Your task to perform on an android device: Search for 3d printer on AliExpress Image 0: 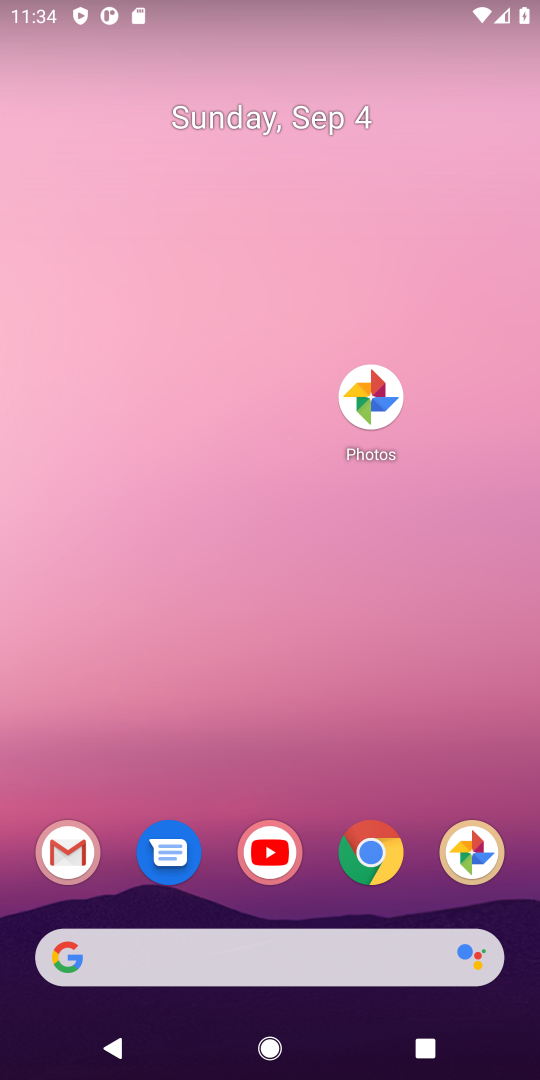
Step 0: drag from (288, 389) to (121, 0)
Your task to perform on an android device: Search for 3d printer on AliExpress Image 1: 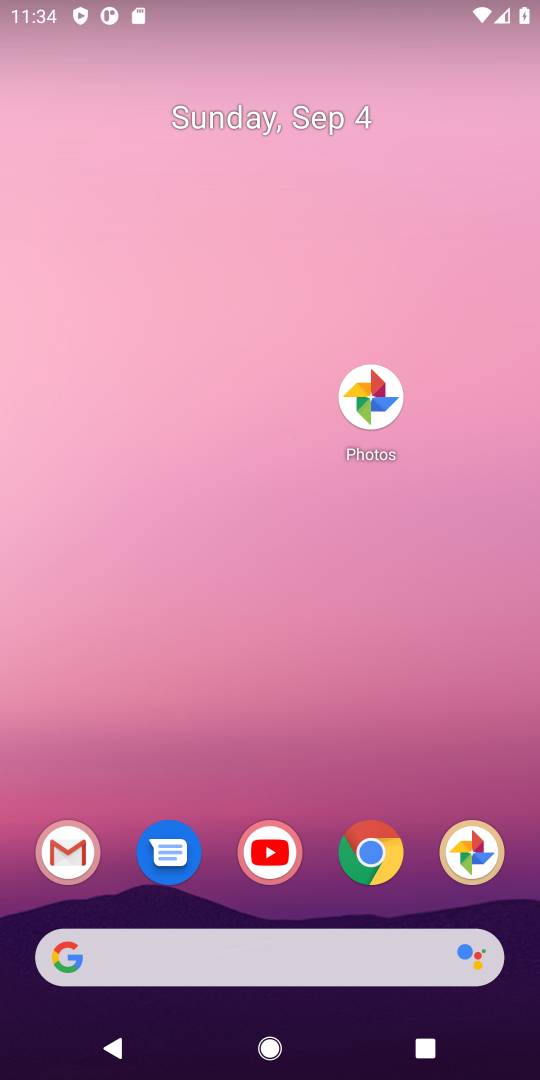
Step 1: drag from (425, 895) to (86, 6)
Your task to perform on an android device: Search for 3d printer on AliExpress Image 2: 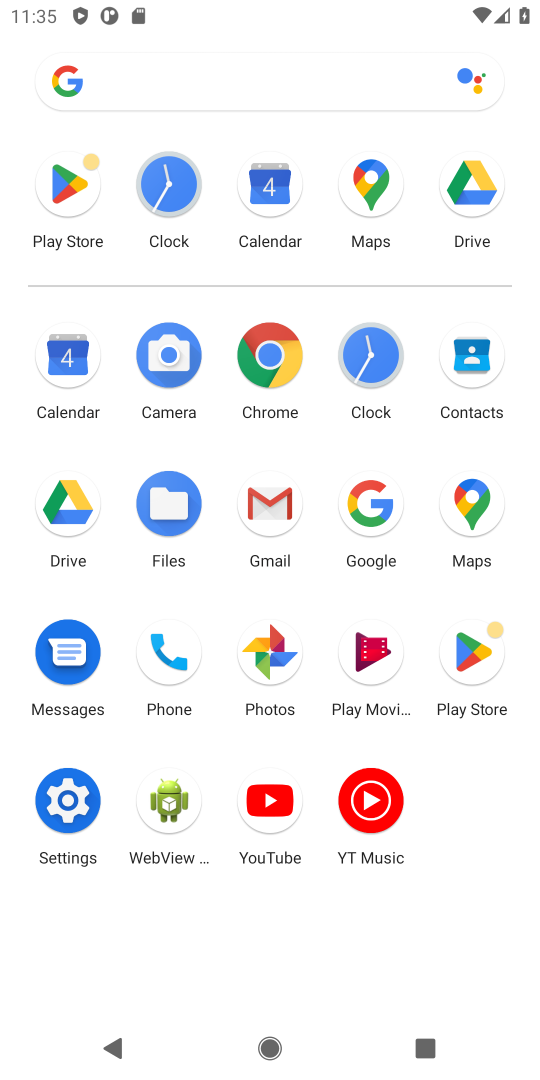
Step 2: click (381, 500)
Your task to perform on an android device: Search for 3d printer on AliExpress Image 3: 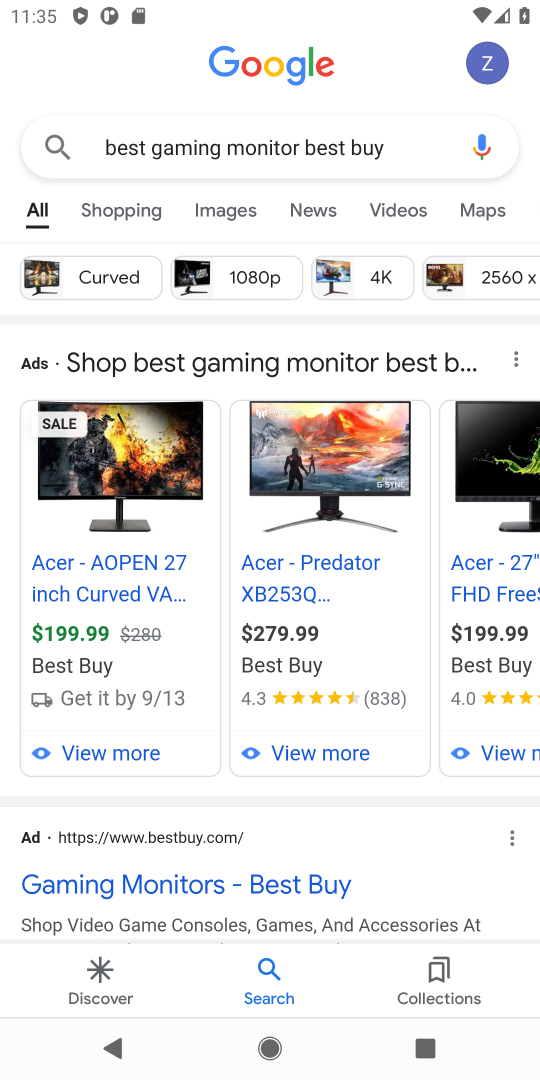
Step 3: press back button
Your task to perform on an android device: Search for 3d printer on AliExpress Image 4: 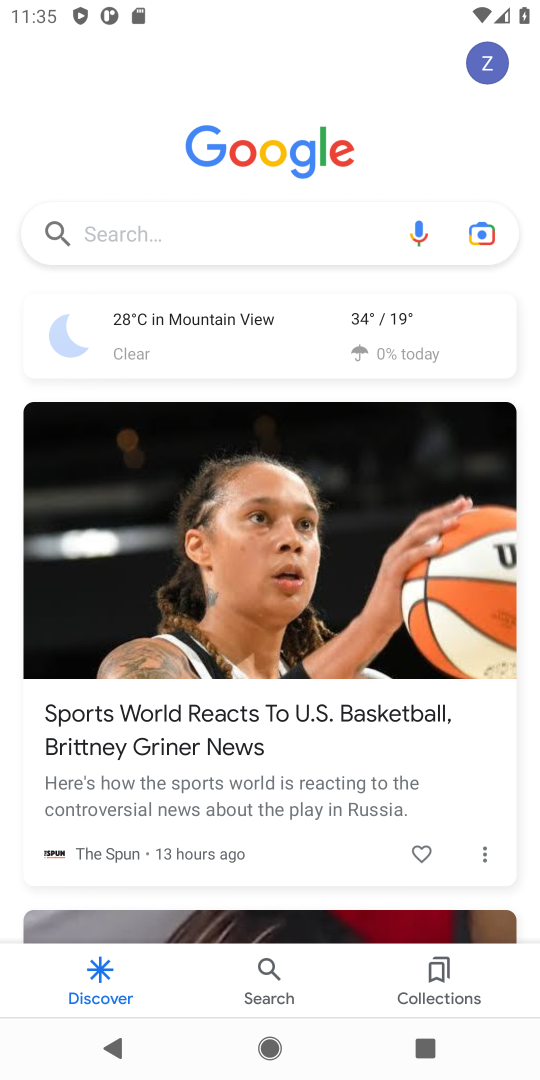
Step 4: click (151, 228)
Your task to perform on an android device: Search for 3d printer on AliExpress Image 5: 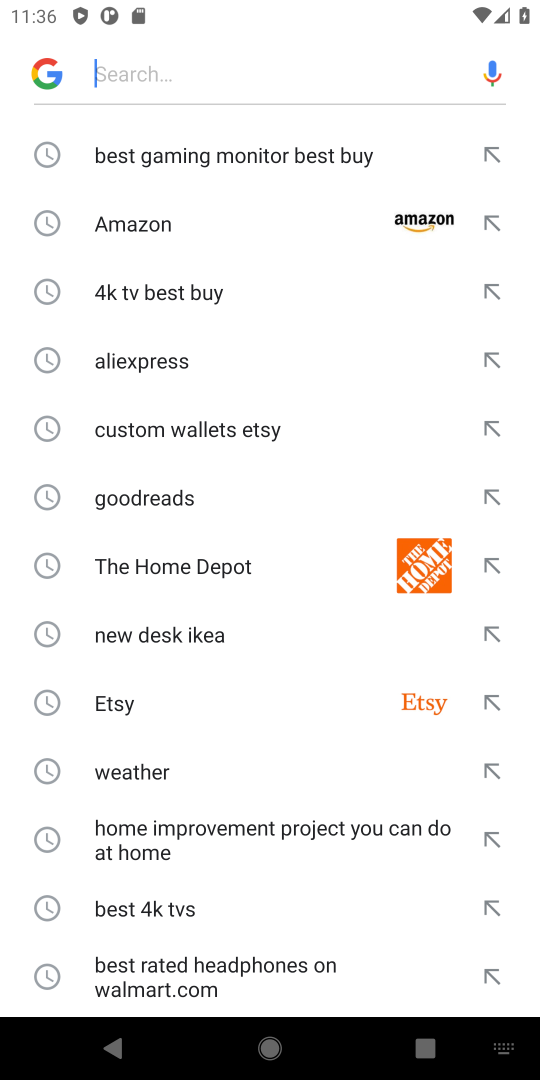
Step 5: click (178, 361)
Your task to perform on an android device: Search for 3d printer on AliExpress Image 6: 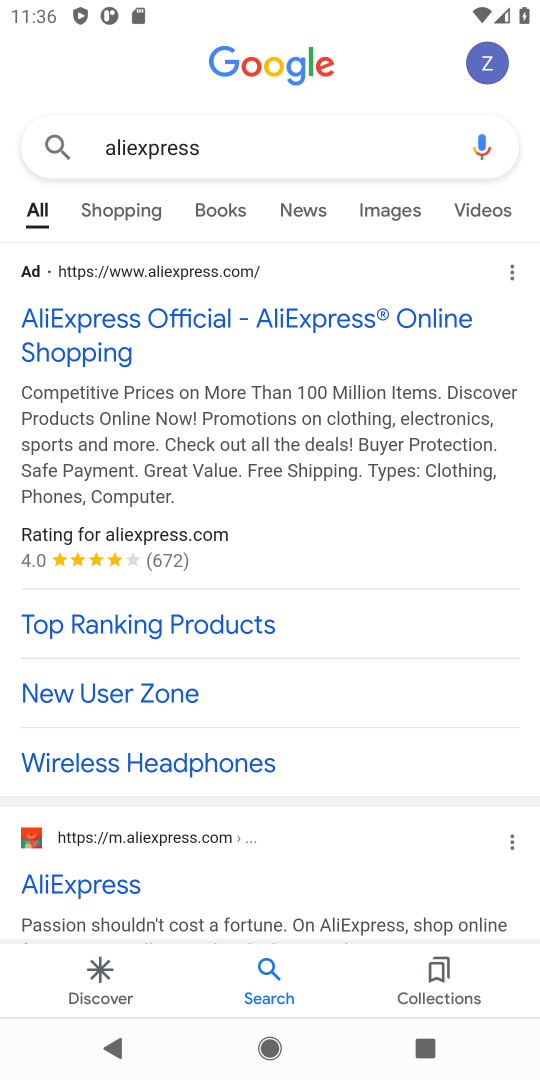
Step 6: click (188, 333)
Your task to perform on an android device: Search for 3d printer on AliExpress Image 7: 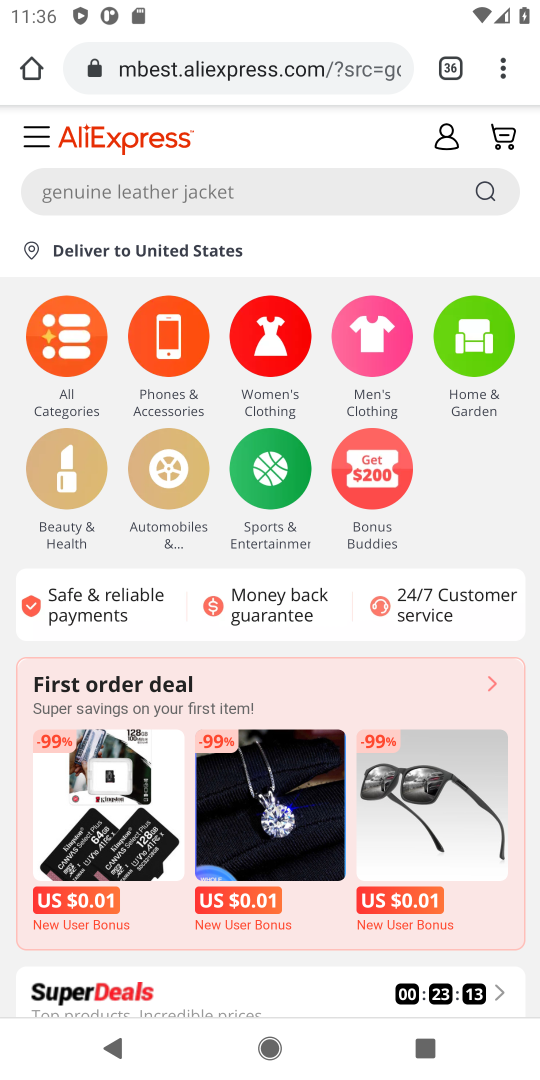
Step 7: click (139, 178)
Your task to perform on an android device: Search for 3d printer on AliExpress Image 8: 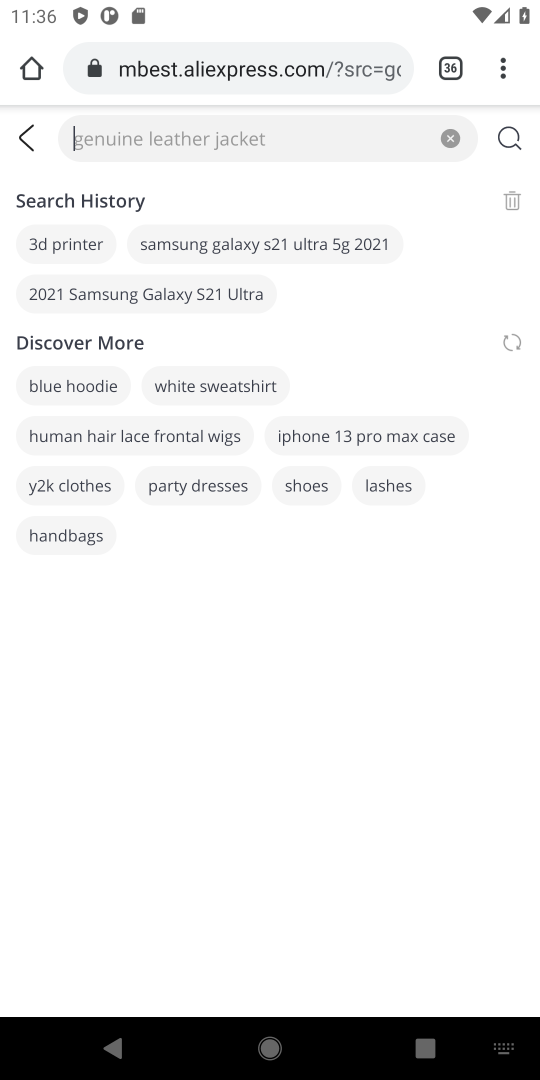
Step 8: click (59, 244)
Your task to perform on an android device: Search for 3d printer on AliExpress Image 9: 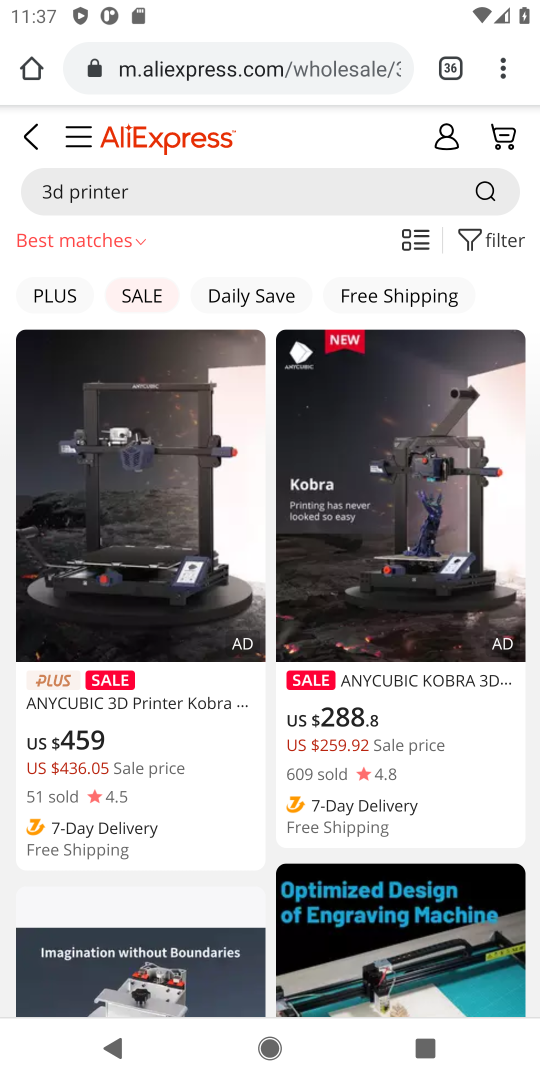
Step 9: task complete